Your task to perform on an android device: View the shopping cart on target. Search for "acer nitro" on target, select the first entry, add it to the cart, then select checkout. Image 0: 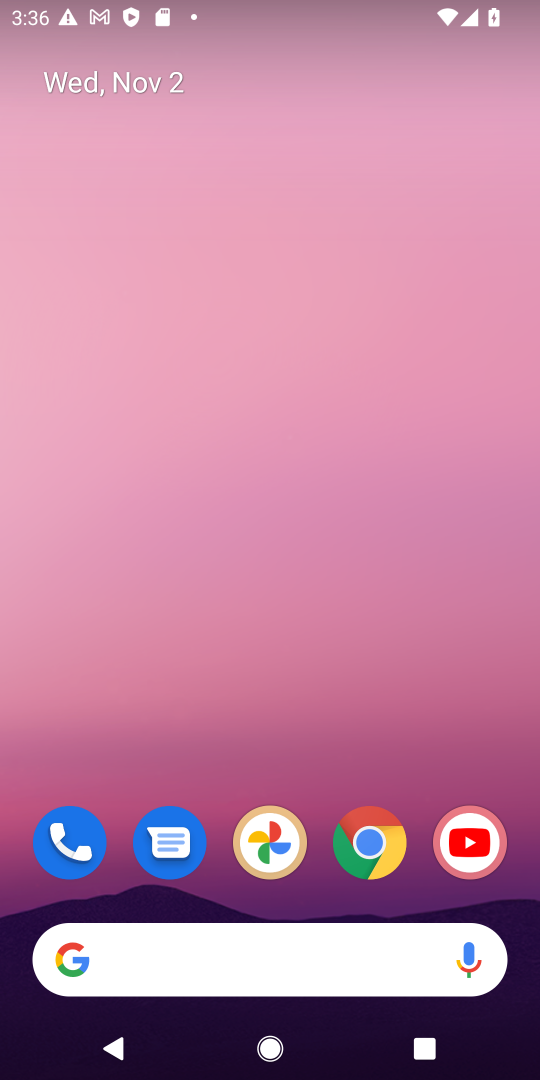
Step 0: click (380, 848)
Your task to perform on an android device: View the shopping cart on target. Search for "acer nitro" on target, select the first entry, add it to the cart, then select checkout. Image 1: 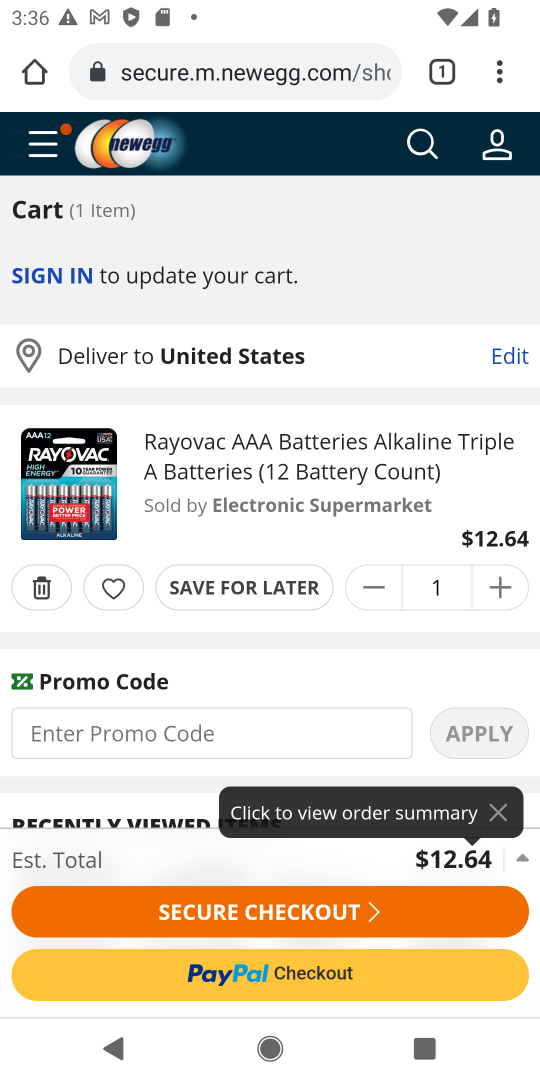
Step 1: click (209, 73)
Your task to perform on an android device: View the shopping cart on target. Search for "acer nitro" on target, select the first entry, add it to the cart, then select checkout. Image 2: 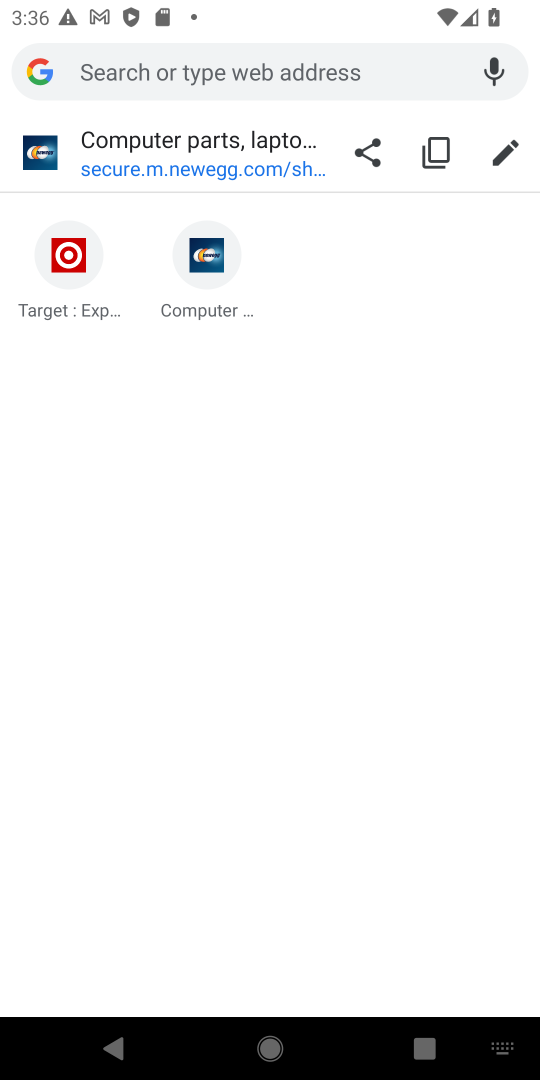
Step 2: click (79, 250)
Your task to perform on an android device: View the shopping cart on target. Search for "acer nitro" on target, select the first entry, add it to the cart, then select checkout. Image 3: 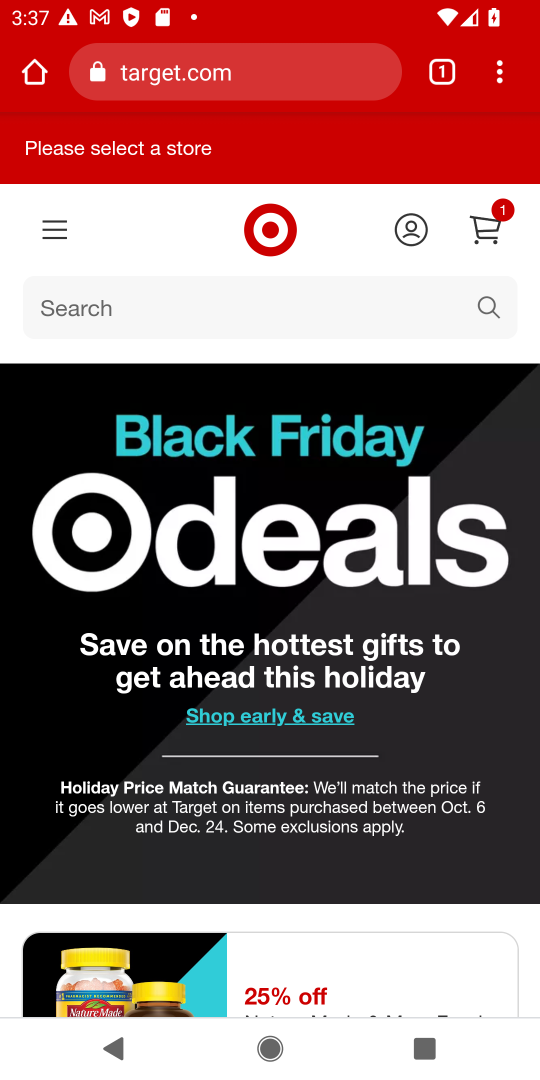
Step 3: click (493, 221)
Your task to perform on an android device: View the shopping cart on target. Search for "acer nitro" on target, select the first entry, add it to the cart, then select checkout. Image 4: 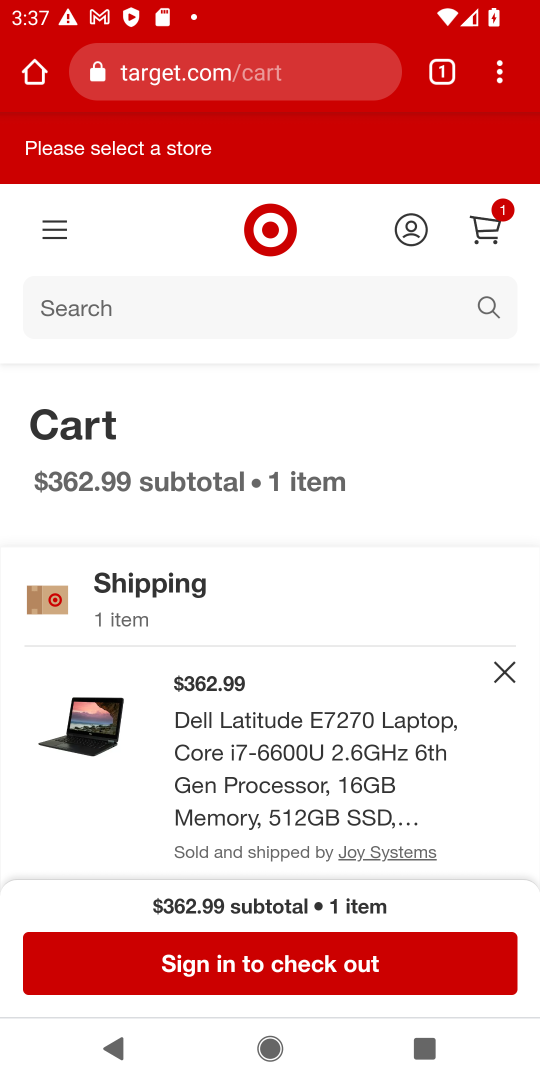
Step 4: click (375, 294)
Your task to perform on an android device: View the shopping cart on target. Search for "acer nitro" on target, select the first entry, add it to the cart, then select checkout. Image 5: 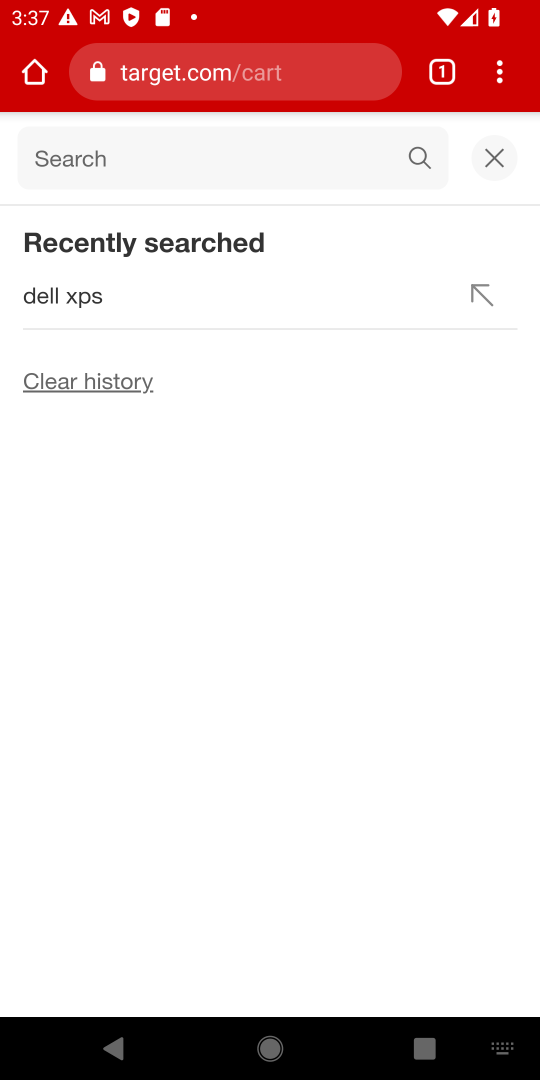
Step 5: type "acer nitro"
Your task to perform on an android device: View the shopping cart on target. Search for "acer nitro" on target, select the first entry, add it to the cart, then select checkout. Image 6: 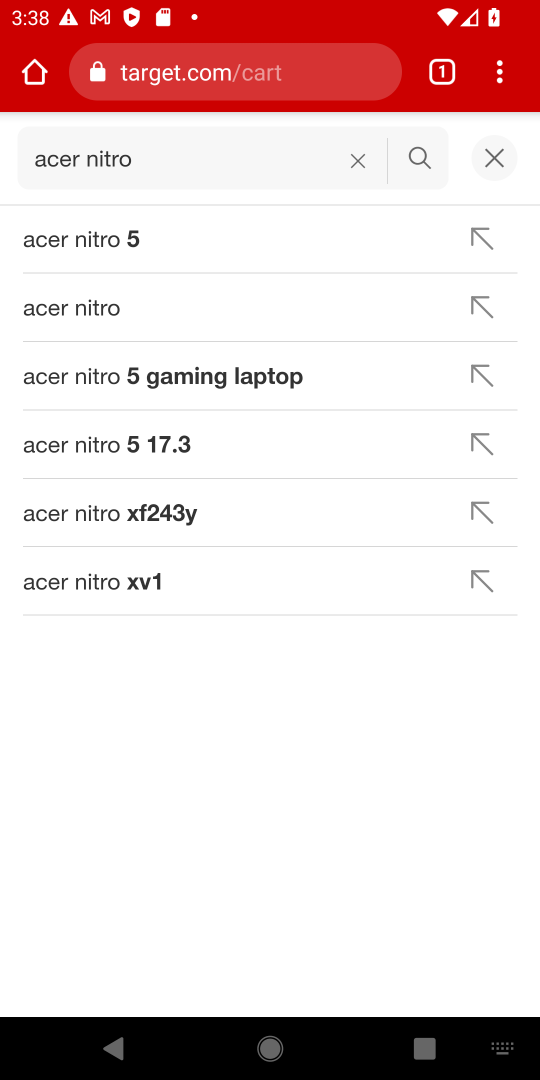
Step 6: click (410, 155)
Your task to perform on an android device: View the shopping cart on target. Search for "acer nitro" on target, select the first entry, add it to the cart, then select checkout. Image 7: 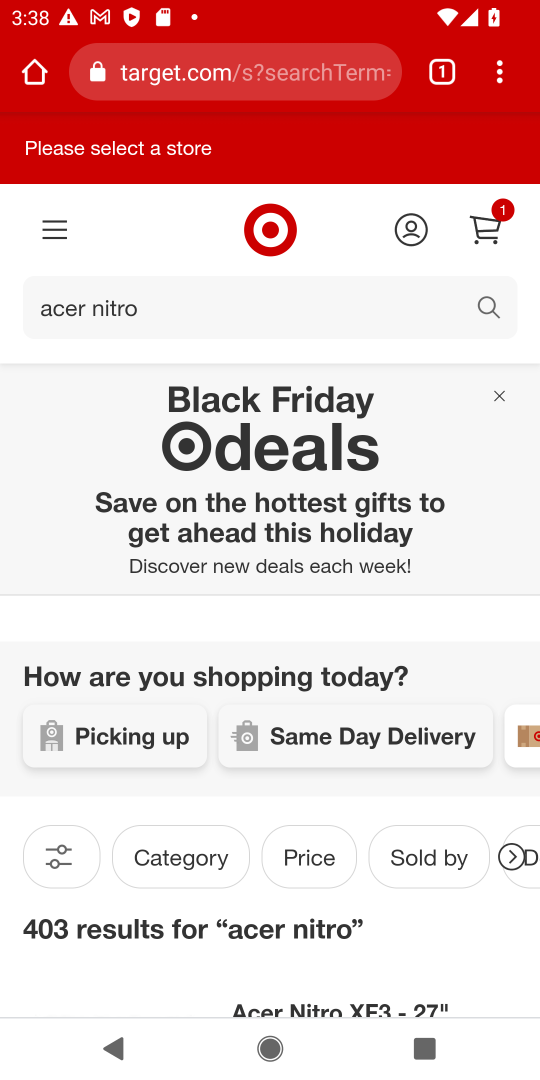
Step 7: drag from (361, 790) to (300, 430)
Your task to perform on an android device: View the shopping cart on target. Search for "acer nitro" on target, select the first entry, add it to the cart, then select checkout. Image 8: 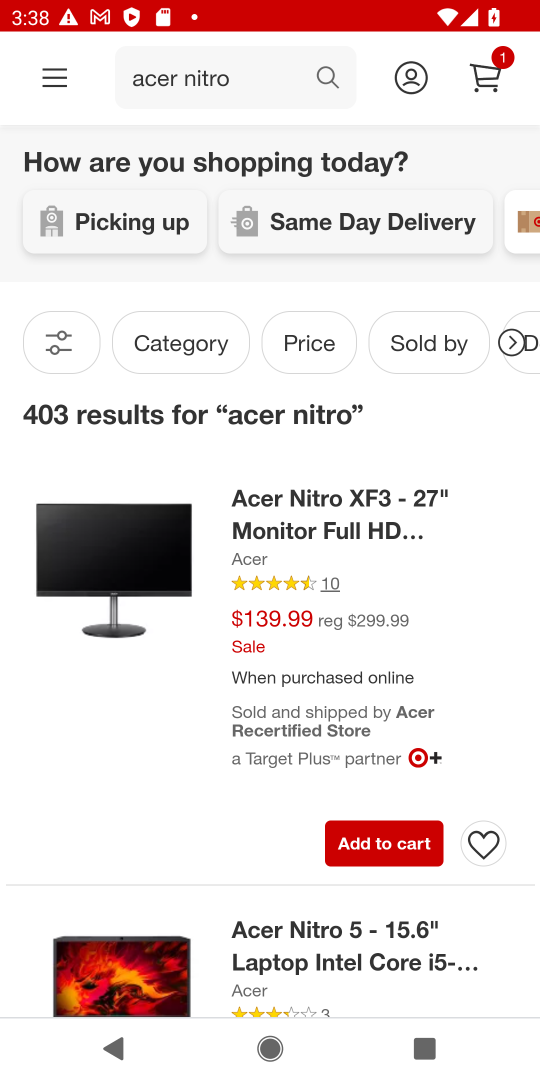
Step 8: click (287, 514)
Your task to perform on an android device: View the shopping cart on target. Search for "acer nitro" on target, select the first entry, add it to the cart, then select checkout. Image 9: 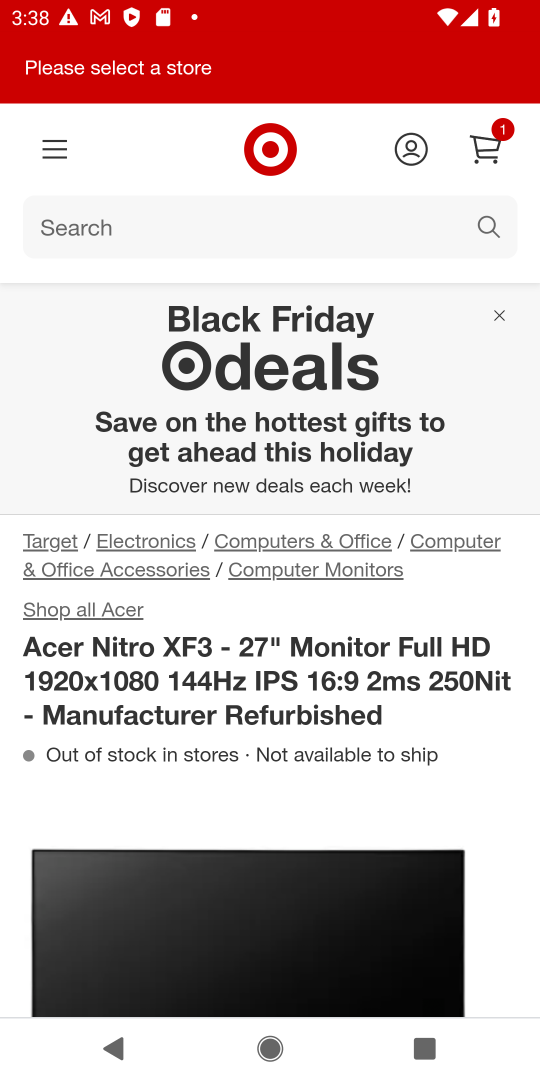
Step 9: drag from (449, 824) to (292, 32)
Your task to perform on an android device: View the shopping cart on target. Search for "acer nitro" on target, select the first entry, add it to the cart, then select checkout. Image 10: 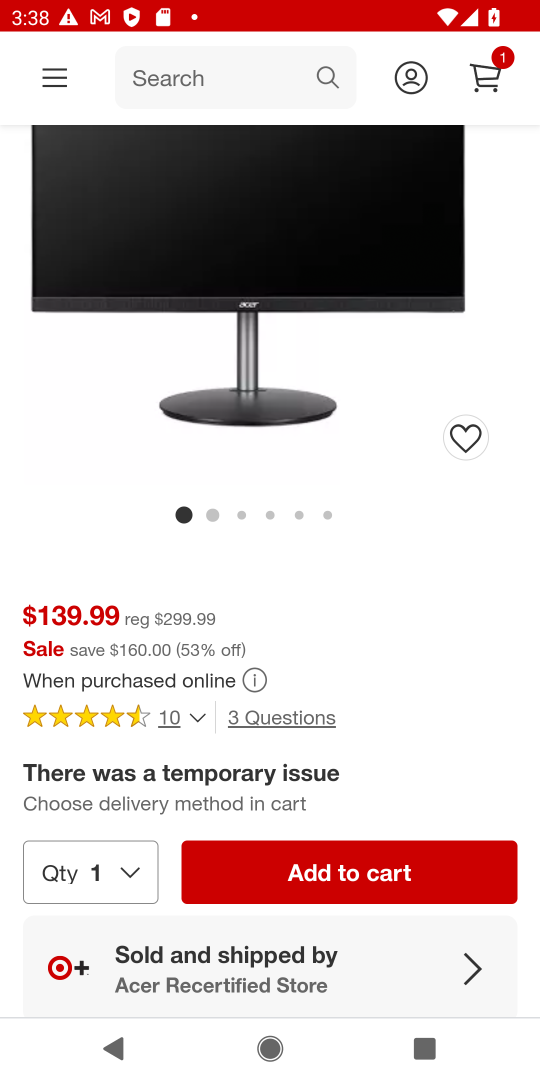
Step 10: click (326, 845)
Your task to perform on an android device: View the shopping cart on target. Search for "acer nitro" on target, select the first entry, add it to the cart, then select checkout. Image 11: 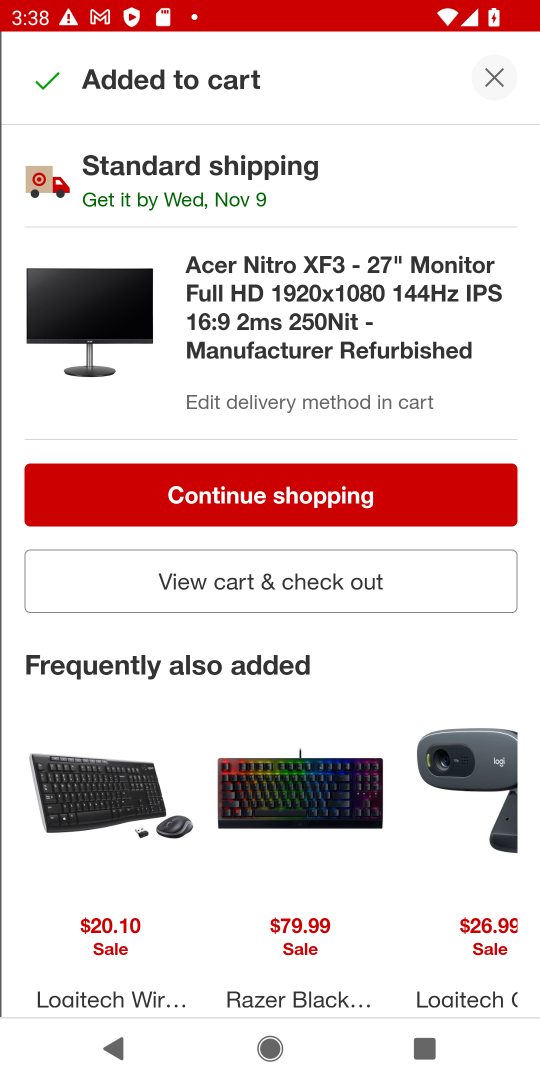
Step 11: click (257, 583)
Your task to perform on an android device: View the shopping cart on target. Search for "acer nitro" on target, select the first entry, add it to the cart, then select checkout. Image 12: 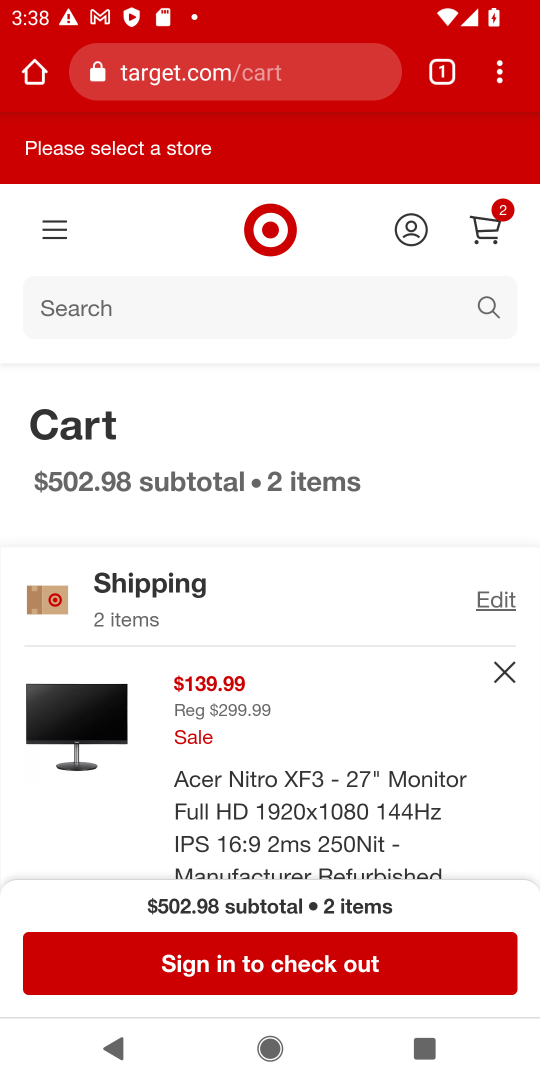
Step 12: click (245, 965)
Your task to perform on an android device: View the shopping cart on target. Search for "acer nitro" on target, select the first entry, add it to the cart, then select checkout. Image 13: 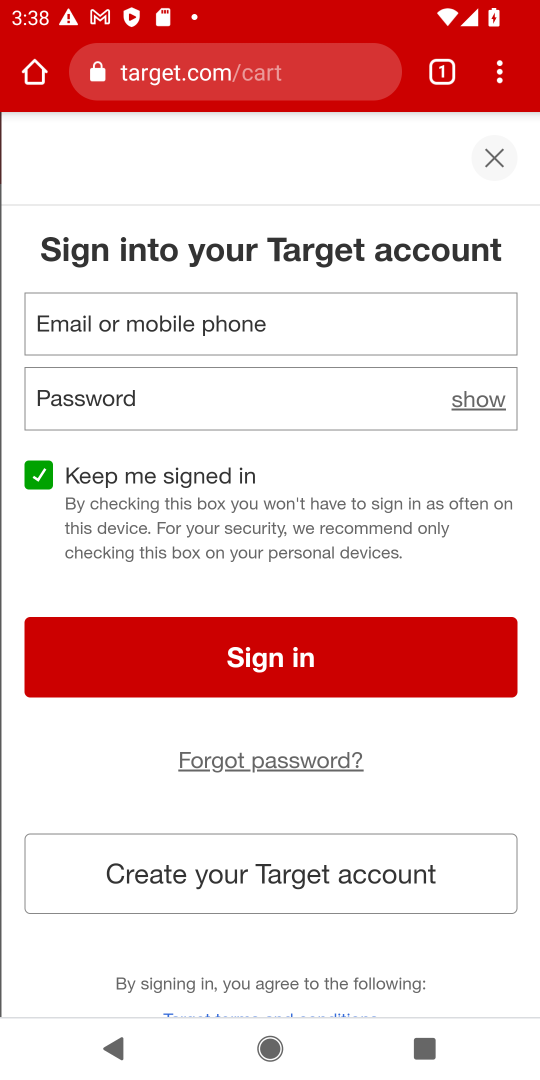
Step 13: task complete